Your task to perform on an android device: What's the weather? Image 0: 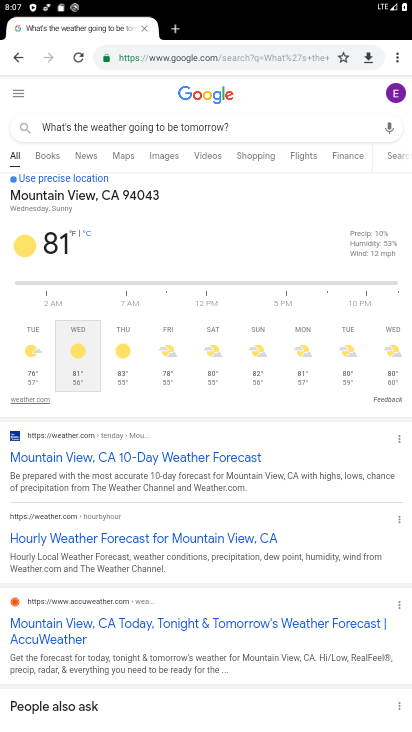
Step 0: press home button
Your task to perform on an android device: What's the weather? Image 1: 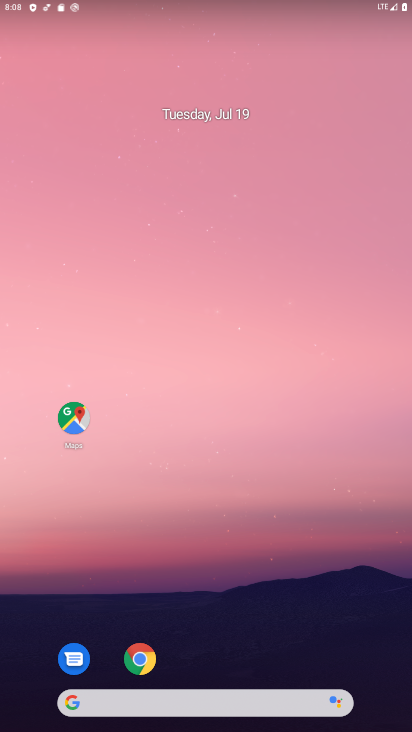
Step 1: drag from (247, 728) to (384, 517)
Your task to perform on an android device: What's the weather? Image 2: 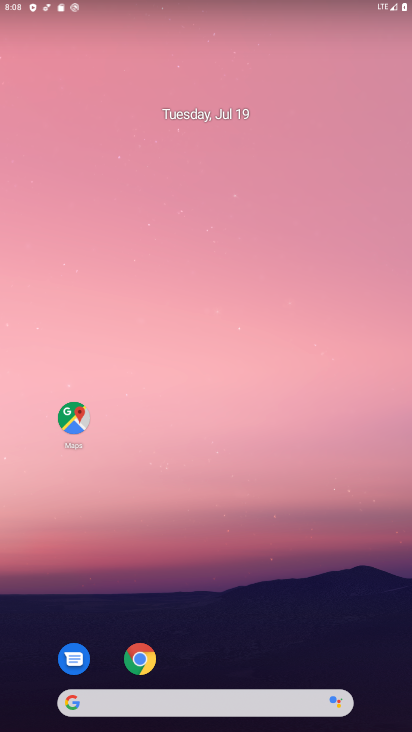
Step 2: click (141, 651)
Your task to perform on an android device: What's the weather? Image 3: 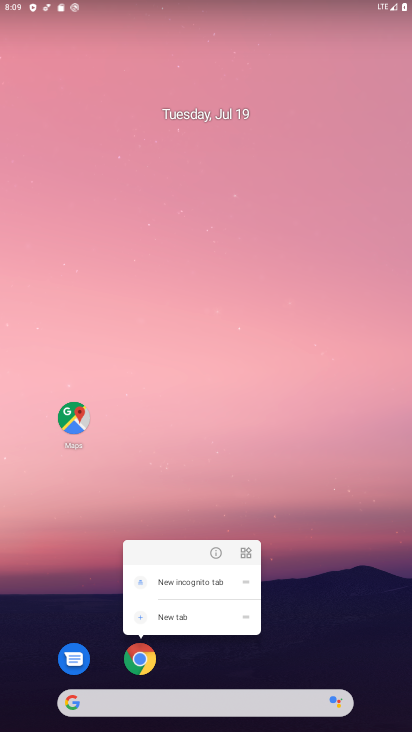
Step 3: click (141, 651)
Your task to perform on an android device: What's the weather? Image 4: 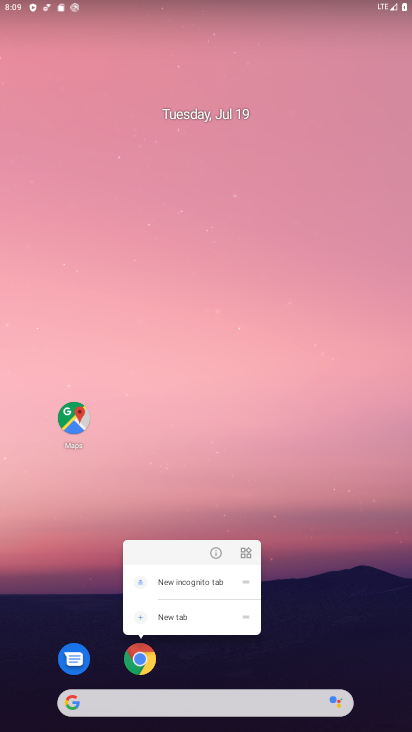
Step 4: click (136, 663)
Your task to perform on an android device: What's the weather? Image 5: 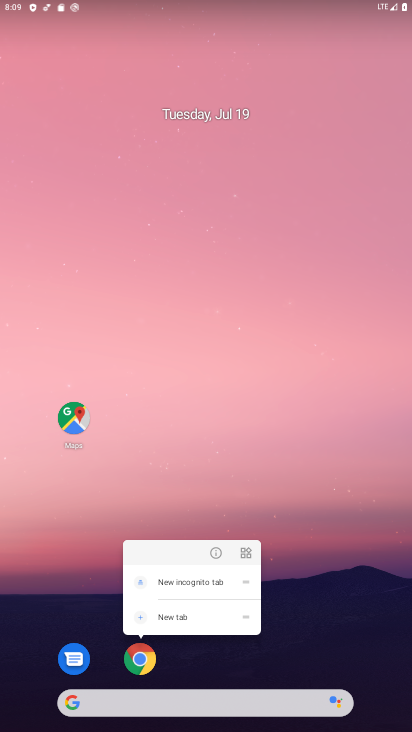
Step 5: click (136, 663)
Your task to perform on an android device: What's the weather? Image 6: 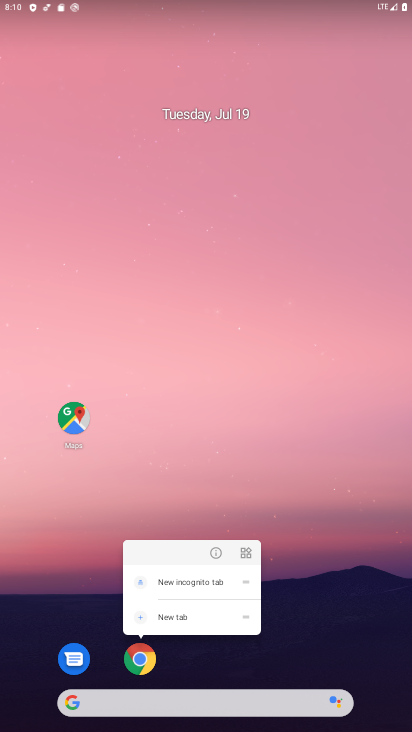
Step 6: click (132, 663)
Your task to perform on an android device: What's the weather? Image 7: 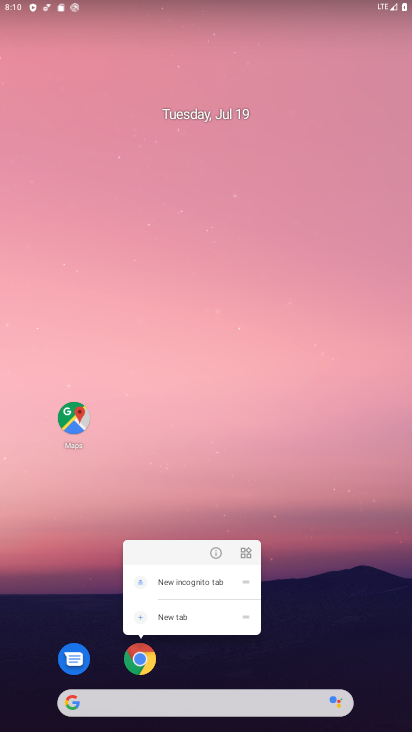
Step 7: click (132, 663)
Your task to perform on an android device: What's the weather? Image 8: 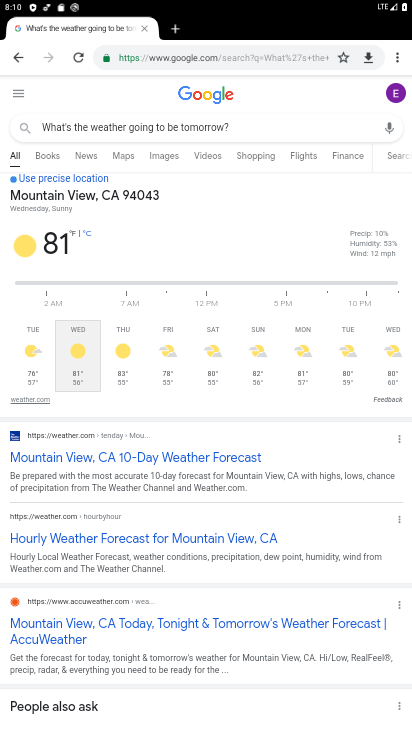
Step 8: click (256, 50)
Your task to perform on an android device: What's the weather? Image 9: 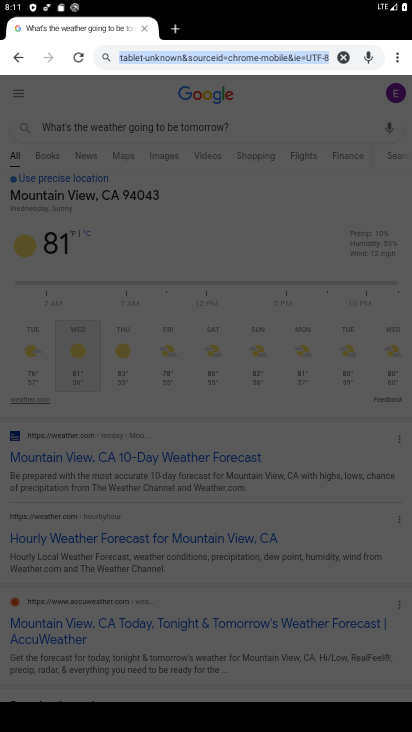
Step 9: type "What's the weather?"
Your task to perform on an android device: What's the weather? Image 10: 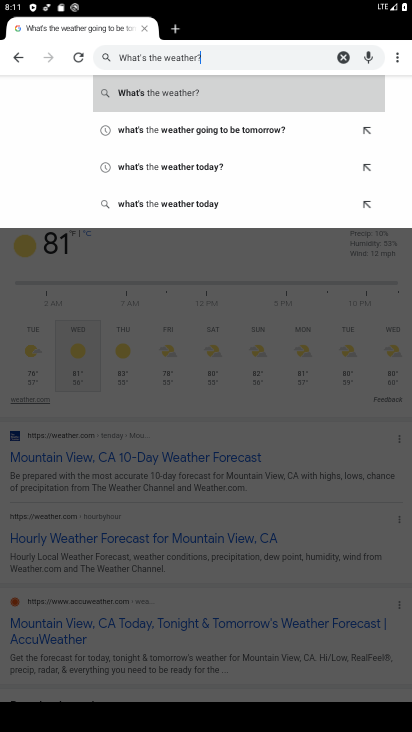
Step 10: type ""
Your task to perform on an android device: What's the weather? Image 11: 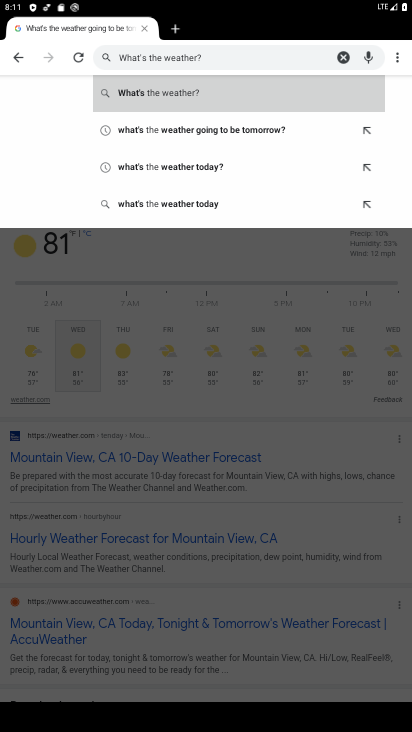
Step 11: click (315, 85)
Your task to perform on an android device: What's the weather? Image 12: 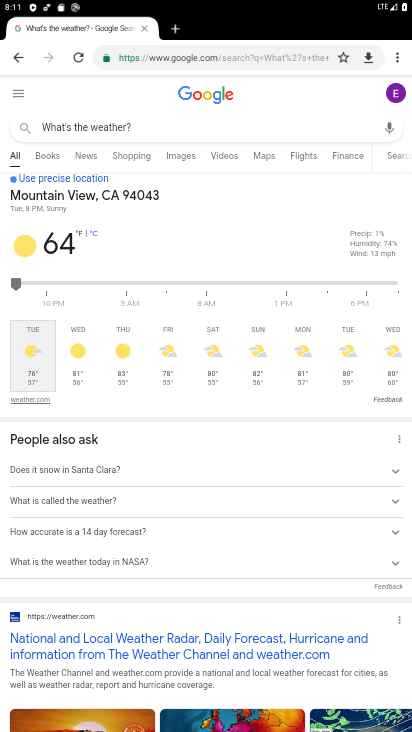
Step 12: task complete